Your task to perform on an android device: turn off improve location accuracy Image 0: 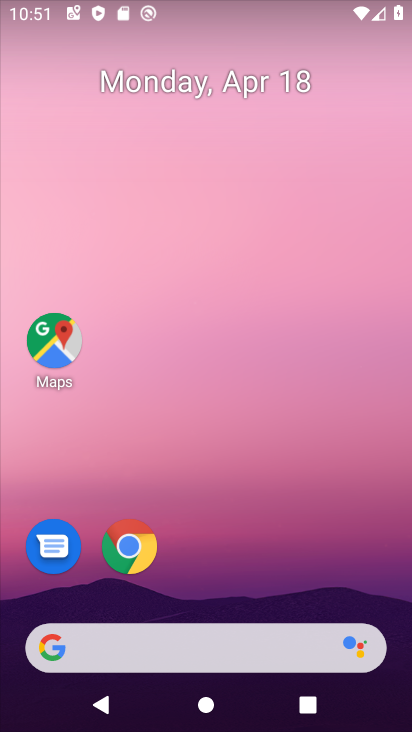
Step 0: drag from (251, 296) to (270, 177)
Your task to perform on an android device: turn off improve location accuracy Image 1: 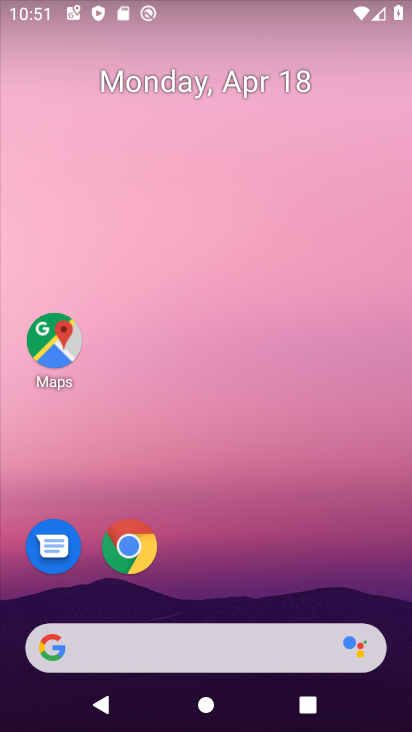
Step 1: drag from (215, 589) to (249, 52)
Your task to perform on an android device: turn off improve location accuracy Image 2: 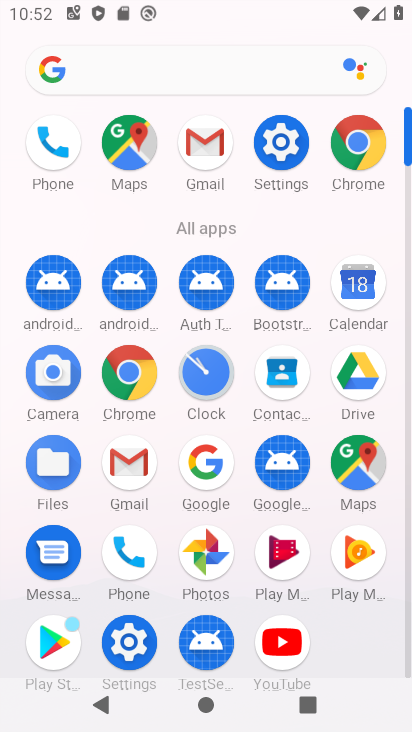
Step 2: click (142, 636)
Your task to perform on an android device: turn off improve location accuracy Image 3: 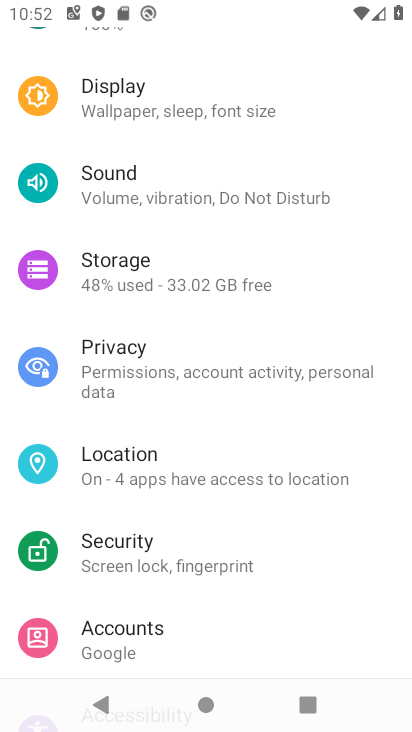
Step 3: drag from (142, 636) to (208, 441)
Your task to perform on an android device: turn off improve location accuracy Image 4: 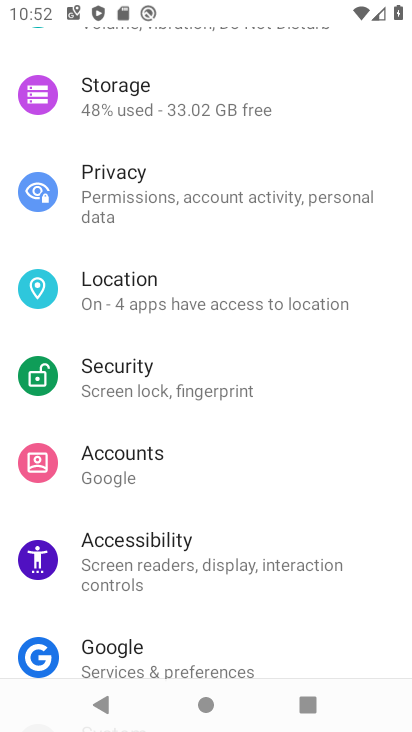
Step 4: click (228, 302)
Your task to perform on an android device: turn off improve location accuracy Image 5: 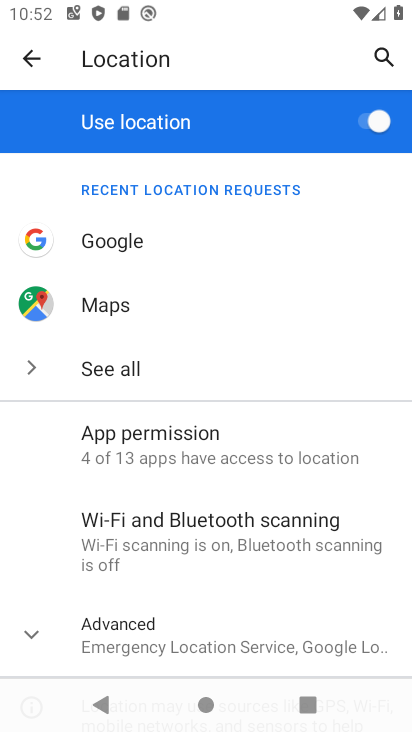
Step 5: drag from (233, 568) to (282, 306)
Your task to perform on an android device: turn off improve location accuracy Image 6: 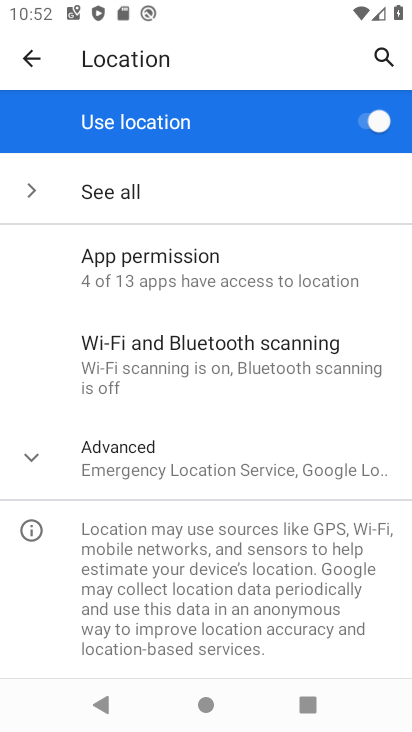
Step 6: click (232, 476)
Your task to perform on an android device: turn off improve location accuracy Image 7: 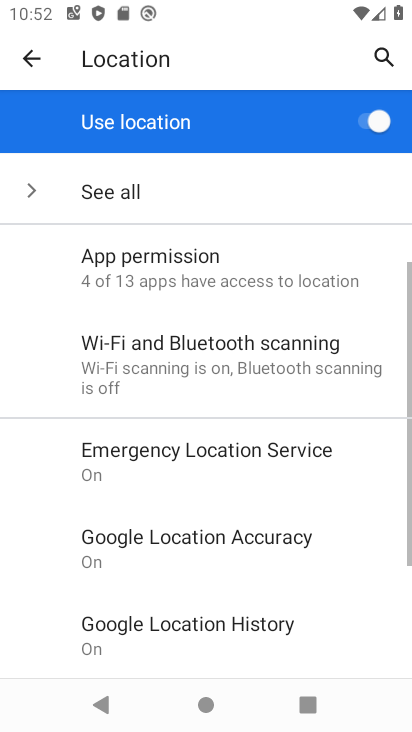
Step 7: drag from (225, 555) to (263, 369)
Your task to perform on an android device: turn off improve location accuracy Image 8: 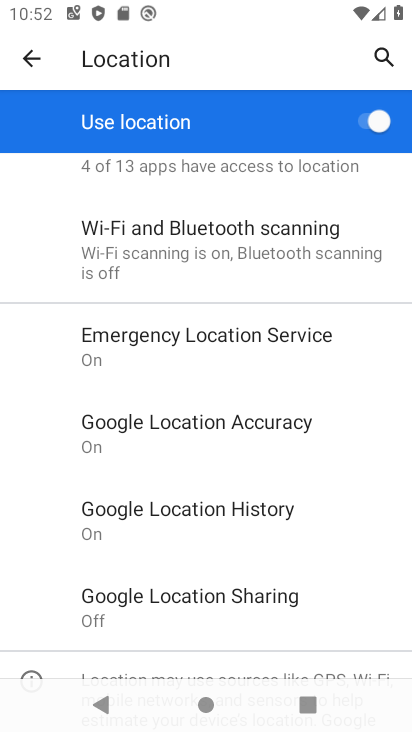
Step 8: click (245, 434)
Your task to perform on an android device: turn off improve location accuracy Image 9: 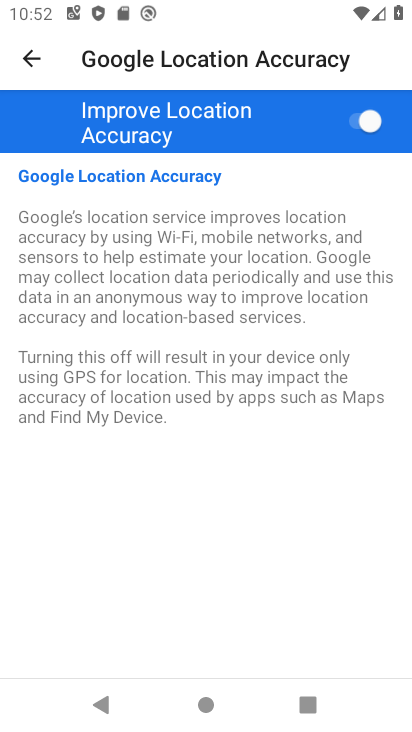
Step 9: click (348, 122)
Your task to perform on an android device: turn off improve location accuracy Image 10: 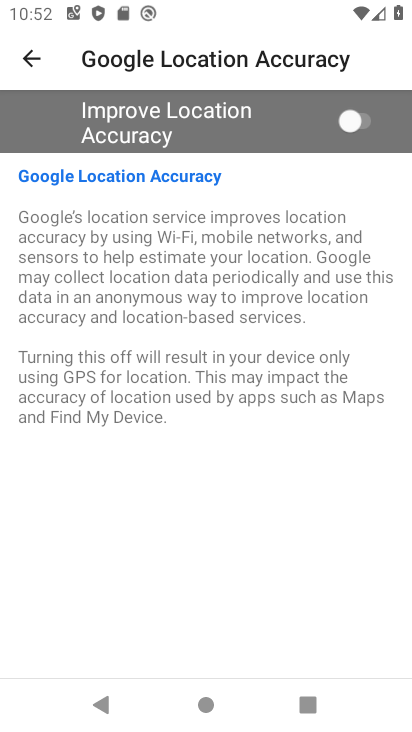
Step 10: task complete